Your task to perform on an android device: open chrome privacy settings Image 0: 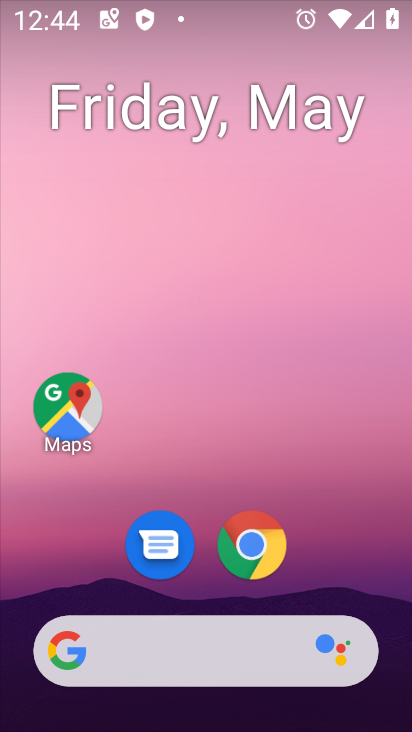
Step 0: drag from (321, 543) to (304, 227)
Your task to perform on an android device: open chrome privacy settings Image 1: 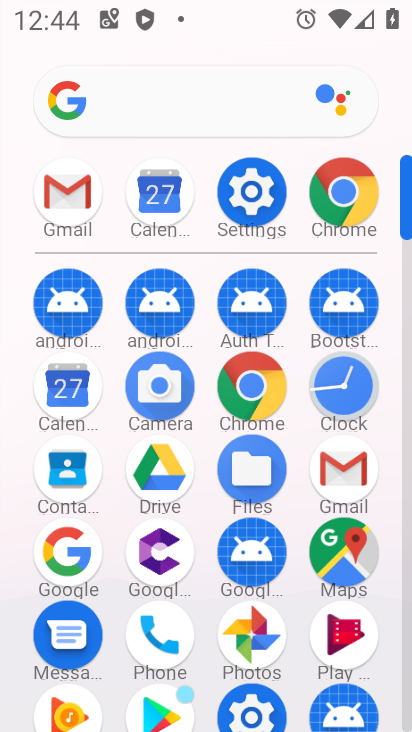
Step 1: click (243, 184)
Your task to perform on an android device: open chrome privacy settings Image 2: 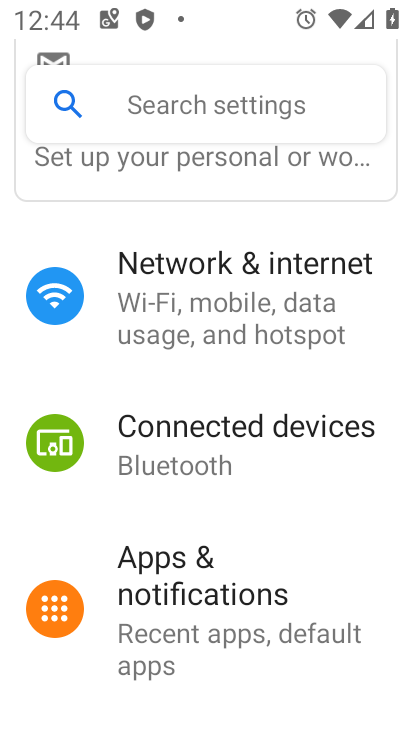
Step 2: drag from (295, 550) to (302, 270)
Your task to perform on an android device: open chrome privacy settings Image 3: 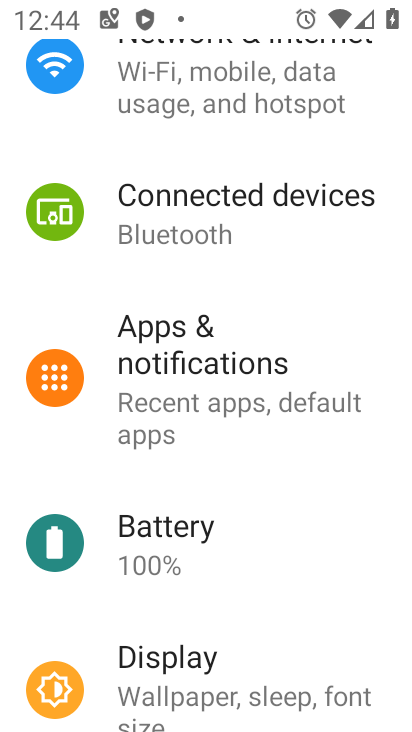
Step 3: drag from (263, 612) to (273, 263)
Your task to perform on an android device: open chrome privacy settings Image 4: 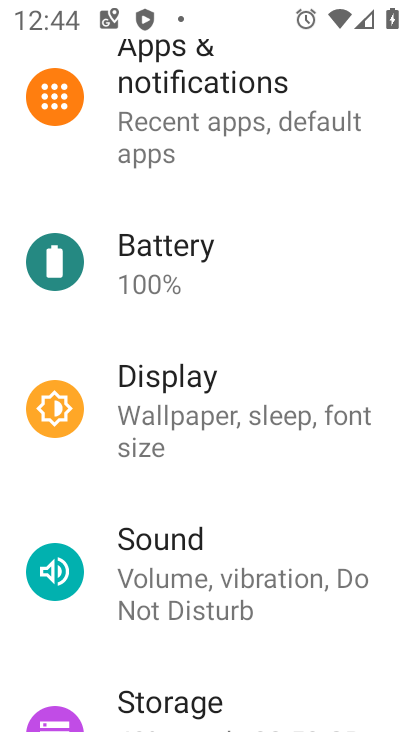
Step 4: drag from (215, 633) to (236, 267)
Your task to perform on an android device: open chrome privacy settings Image 5: 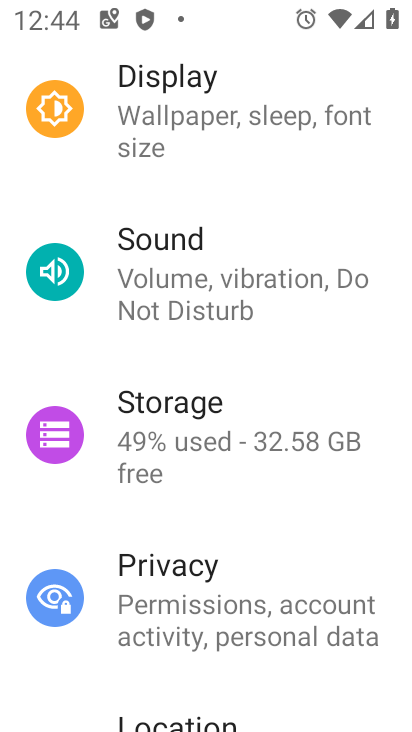
Step 5: click (178, 604)
Your task to perform on an android device: open chrome privacy settings Image 6: 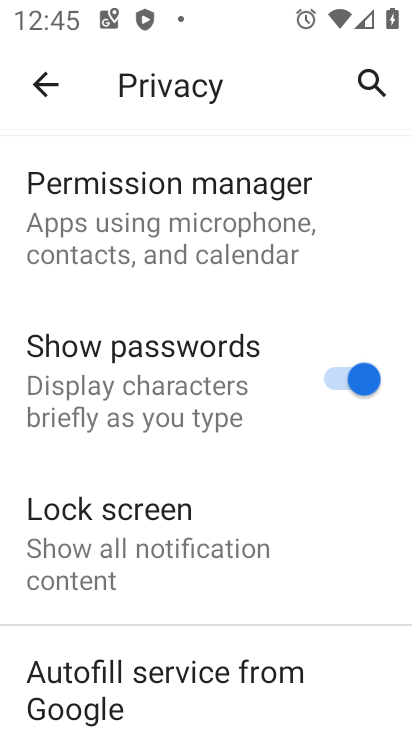
Step 6: task complete